Your task to perform on an android device: check google app version Image 0: 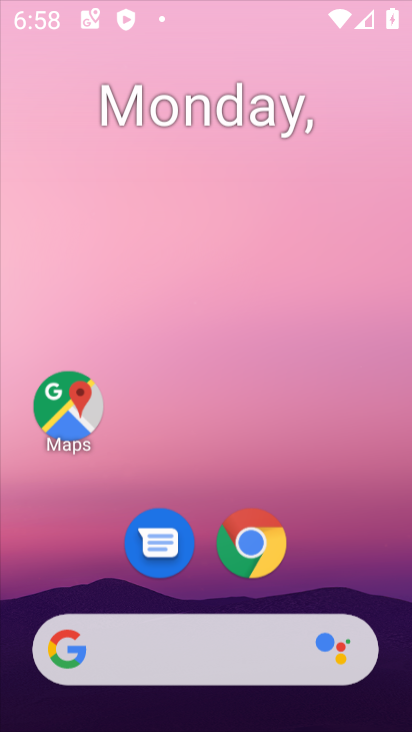
Step 0: drag from (329, 544) to (264, 129)
Your task to perform on an android device: check google app version Image 1: 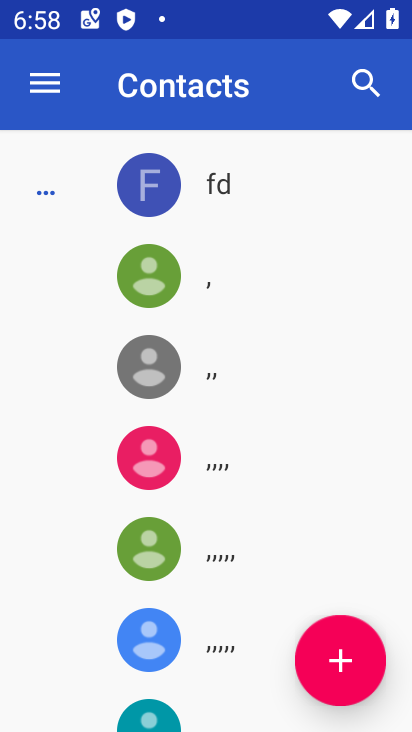
Step 1: press home button
Your task to perform on an android device: check google app version Image 2: 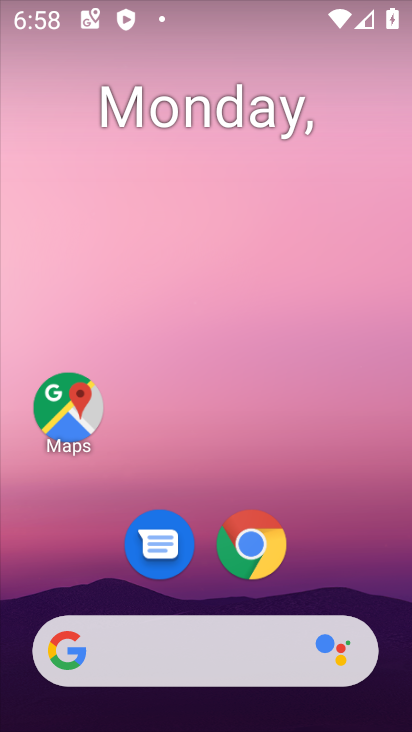
Step 2: click (77, 651)
Your task to perform on an android device: check google app version Image 3: 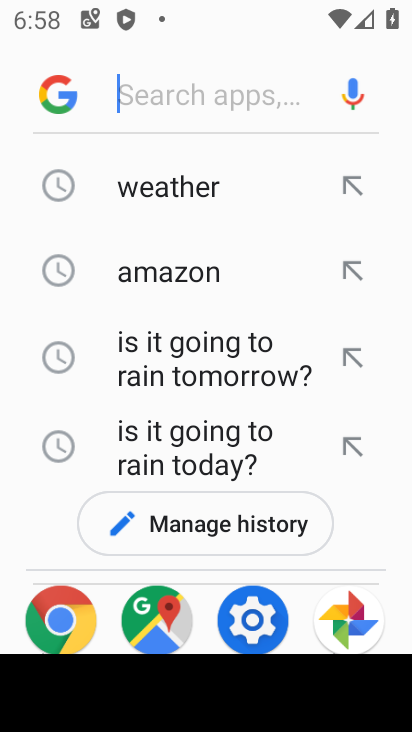
Step 3: click (55, 88)
Your task to perform on an android device: check google app version Image 4: 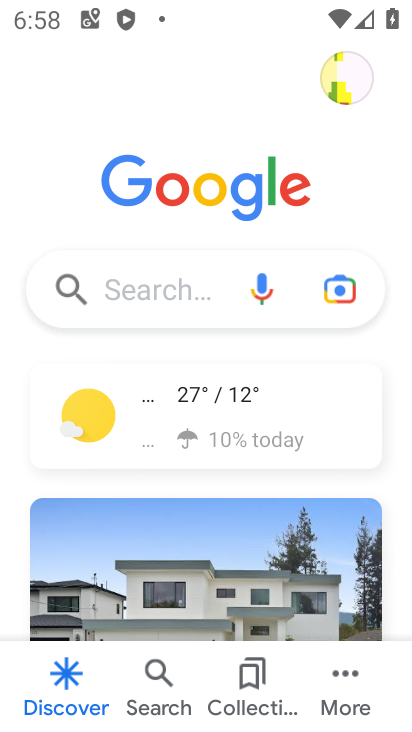
Step 4: click (349, 668)
Your task to perform on an android device: check google app version Image 5: 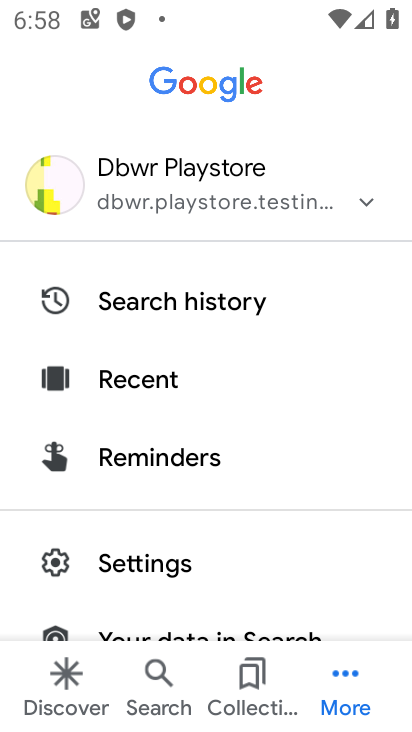
Step 5: click (139, 551)
Your task to perform on an android device: check google app version Image 6: 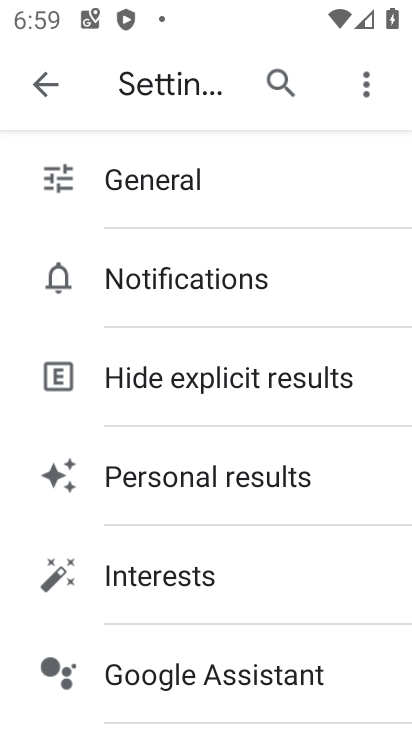
Step 6: drag from (278, 598) to (231, 259)
Your task to perform on an android device: check google app version Image 7: 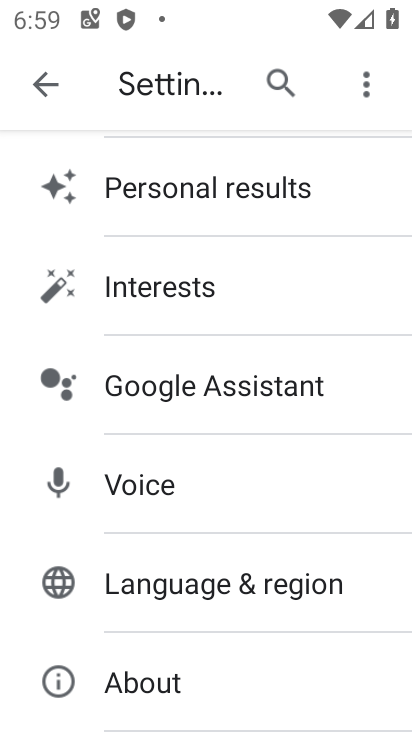
Step 7: click (134, 662)
Your task to perform on an android device: check google app version Image 8: 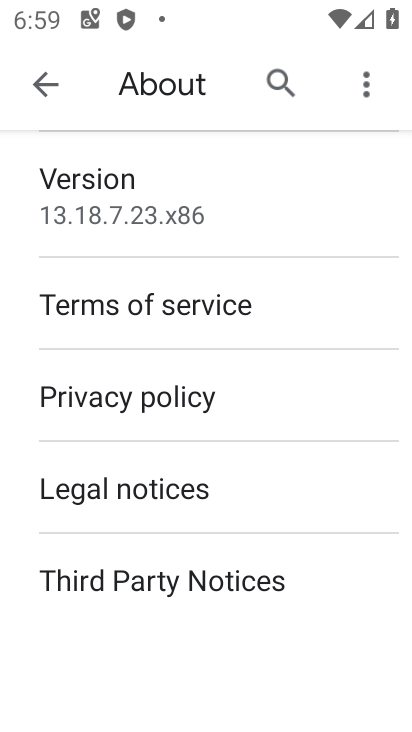
Step 8: task complete